Your task to perform on an android device: What's on Reddit this week Image 0: 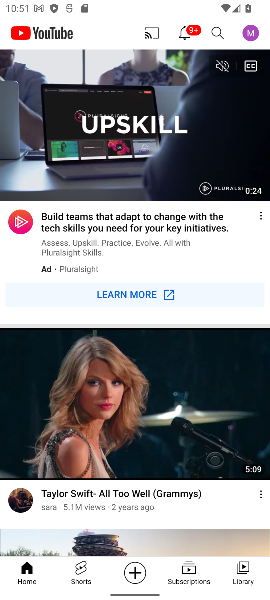
Step 0: press home button
Your task to perform on an android device: What's on Reddit this week Image 1: 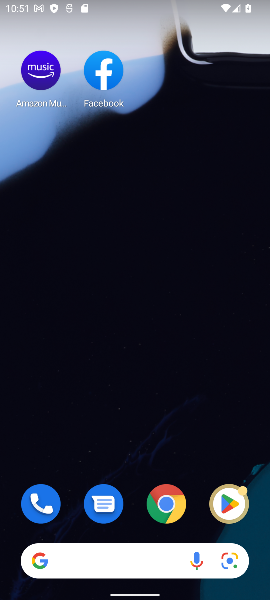
Step 1: click (166, 508)
Your task to perform on an android device: What's on Reddit this week Image 2: 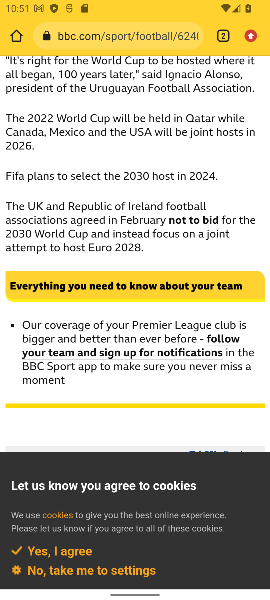
Step 2: click (117, 27)
Your task to perform on an android device: What's on Reddit this week Image 3: 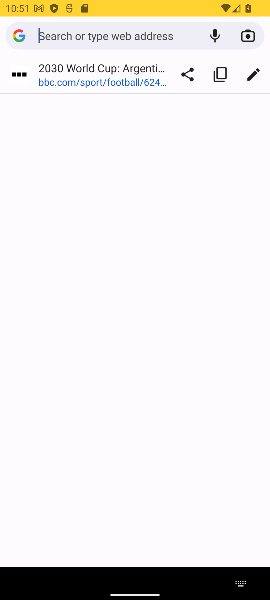
Step 3: type "reddit"
Your task to perform on an android device: What's on Reddit this week Image 4: 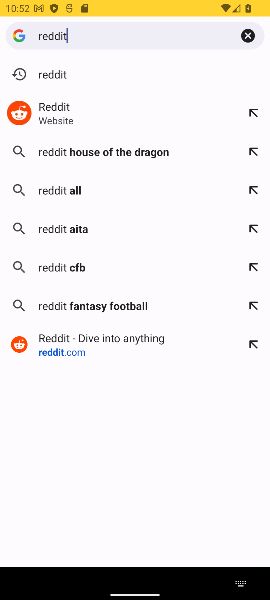
Step 4: click (65, 105)
Your task to perform on an android device: What's on Reddit this week Image 5: 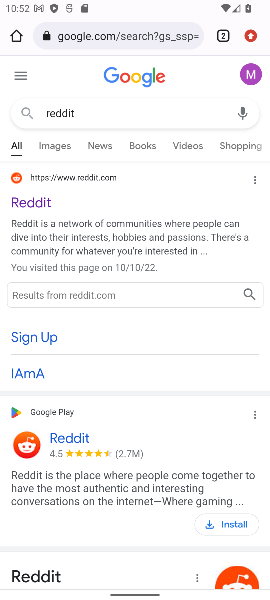
Step 5: click (34, 203)
Your task to perform on an android device: What's on Reddit this week Image 6: 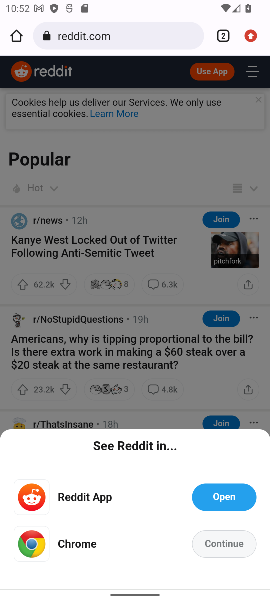
Step 6: click (118, 291)
Your task to perform on an android device: What's on Reddit this week Image 7: 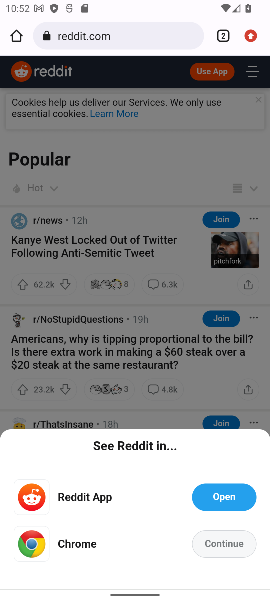
Step 7: drag from (132, 384) to (98, 59)
Your task to perform on an android device: What's on Reddit this week Image 8: 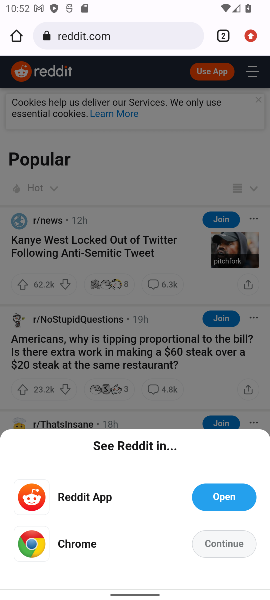
Step 8: click (223, 545)
Your task to perform on an android device: What's on Reddit this week Image 9: 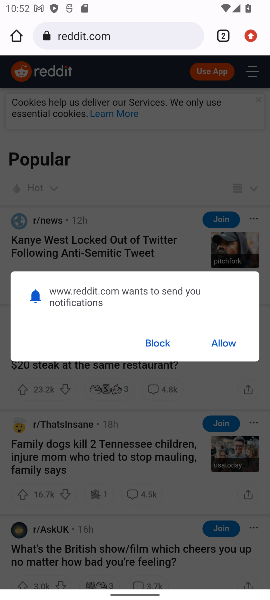
Step 9: click (159, 338)
Your task to perform on an android device: What's on Reddit this week Image 10: 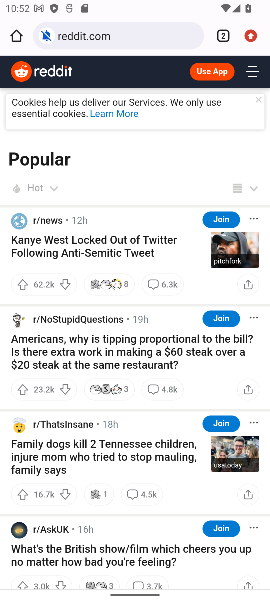
Step 10: task complete